Your task to perform on an android device: Go to sound settings Image 0: 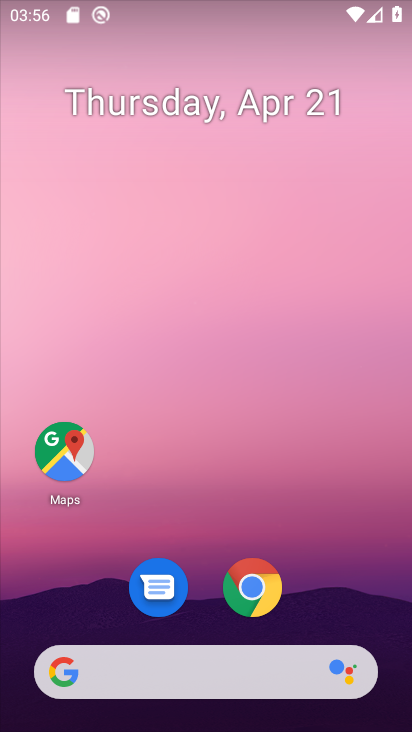
Step 0: drag from (349, 597) to (328, 194)
Your task to perform on an android device: Go to sound settings Image 1: 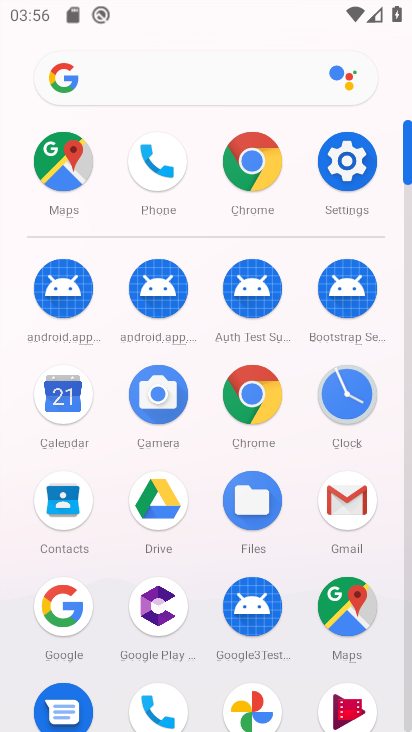
Step 1: click (346, 174)
Your task to perform on an android device: Go to sound settings Image 2: 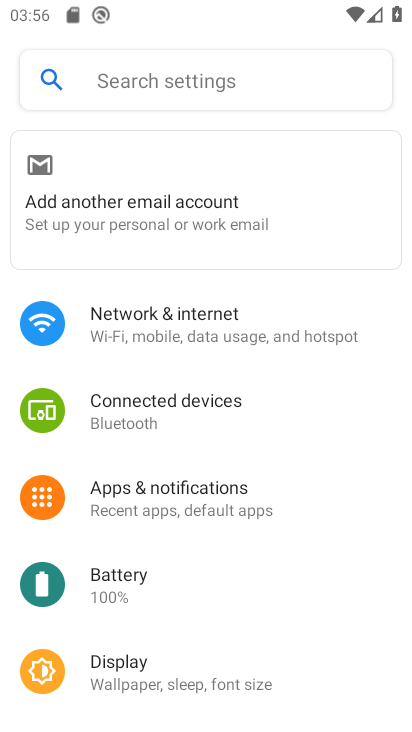
Step 2: drag from (353, 549) to (351, 419)
Your task to perform on an android device: Go to sound settings Image 3: 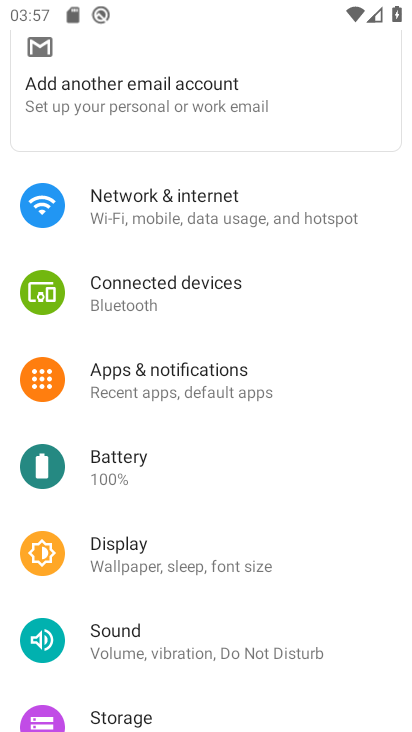
Step 3: drag from (353, 543) to (354, 423)
Your task to perform on an android device: Go to sound settings Image 4: 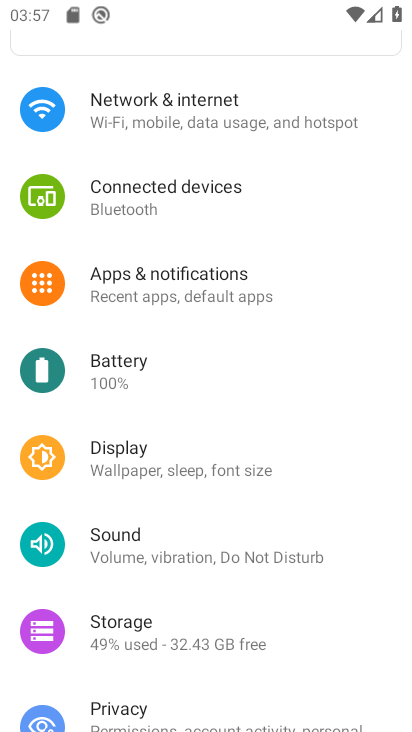
Step 4: drag from (346, 564) to (352, 459)
Your task to perform on an android device: Go to sound settings Image 5: 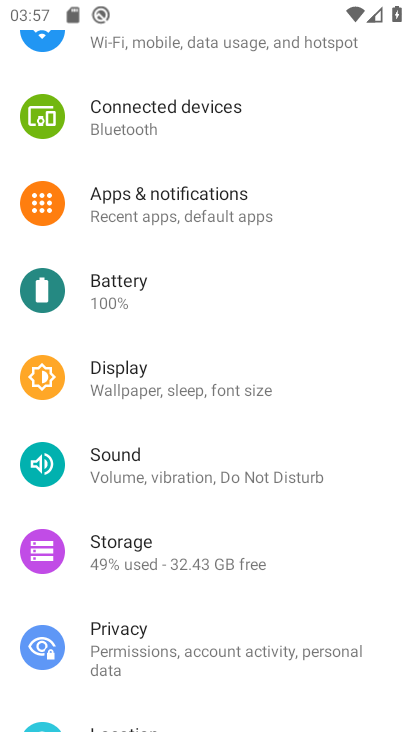
Step 5: drag from (353, 567) to (356, 479)
Your task to perform on an android device: Go to sound settings Image 6: 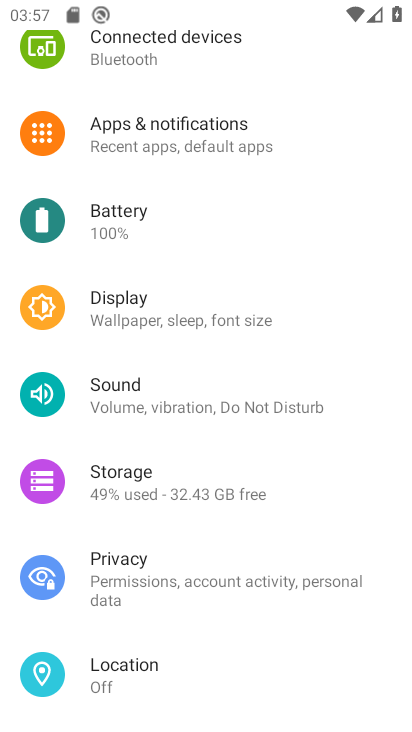
Step 6: click (280, 407)
Your task to perform on an android device: Go to sound settings Image 7: 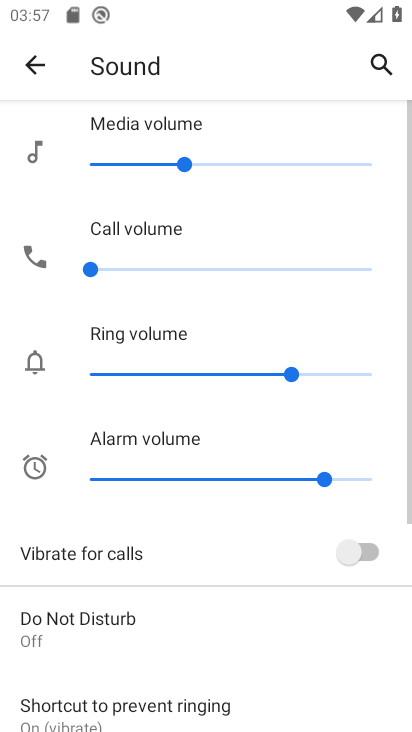
Step 7: task complete